Your task to perform on an android device: Toggle the flashlight Image 0: 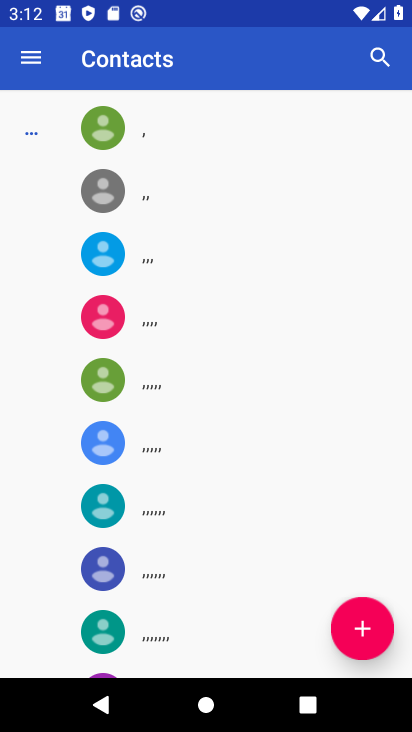
Step 0: press home button
Your task to perform on an android device: Toggle the flashlight Image 1: 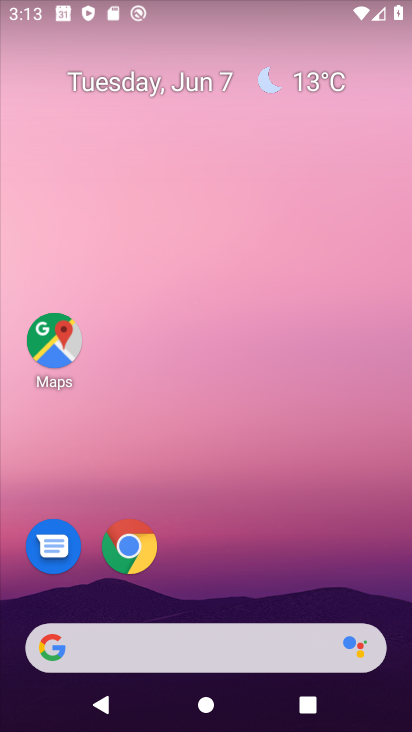
Step 1: drag from (211, 608) to (320, 40)
Your task to perform on an android device: Toggle the flashlight Image 2: 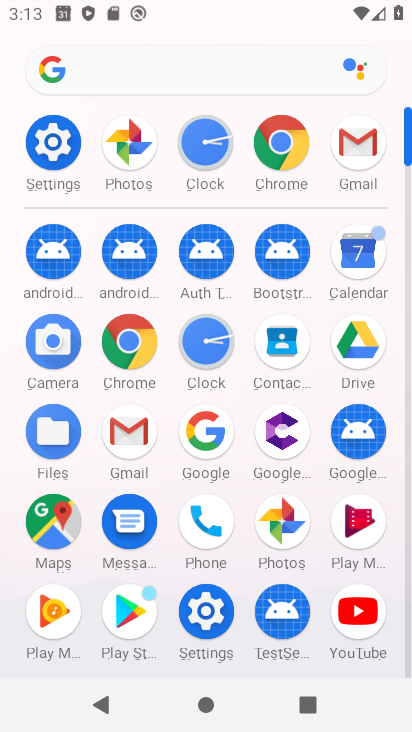
Step 2: click (68, 129)
Your task to perform on an android device: Toggle the flashlight Image 3: 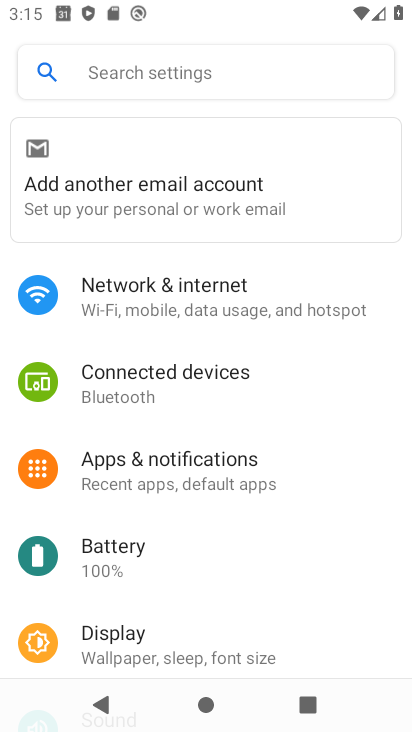
Step 3: task complete